Your task to perform on an android device: turn pop-ups off in chrome Image 0: 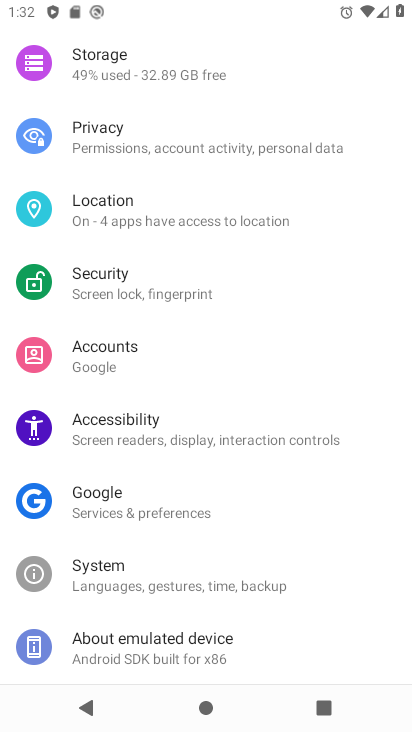
Step 0: task complete